Your task to perform on an android device: Search for a new skincare product Image 0: 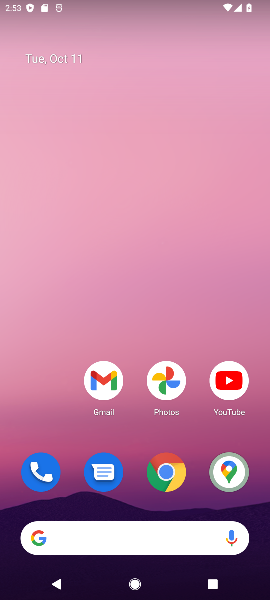
Step 0: click (175, 474)
Your task to perform on an android device: Search for a new skincare product Image 1: 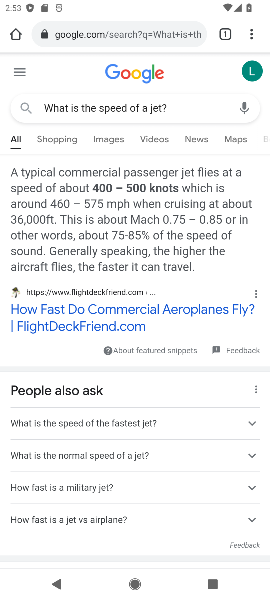
Step 1: click (95, 26)
Your task to perform on an android device: Search for a new skincare product Image 2: 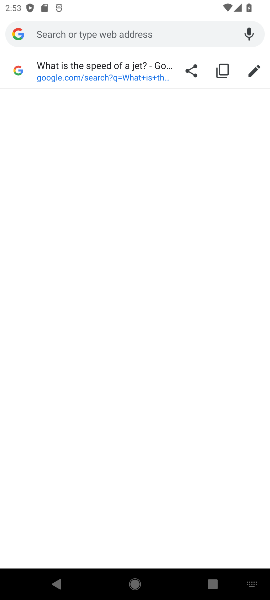
Step 2: type "new skincare product"
Your task to perform on an android device: Search for a new skincare product Image 3: 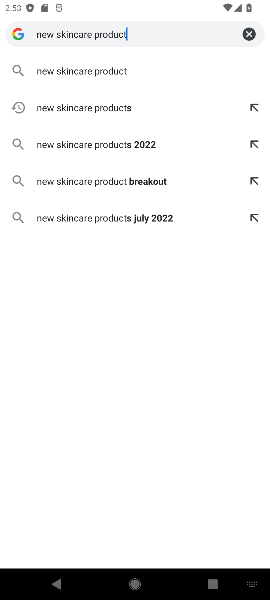
Step 3: click (129, 77)
Your task to perform on an android device: Search for a new skincare product Image 4: 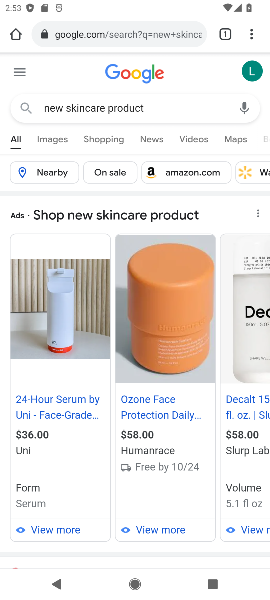
Step 4: click (103, 140)
Your task to perform on an android device: Search for a new skincare product Image 5: 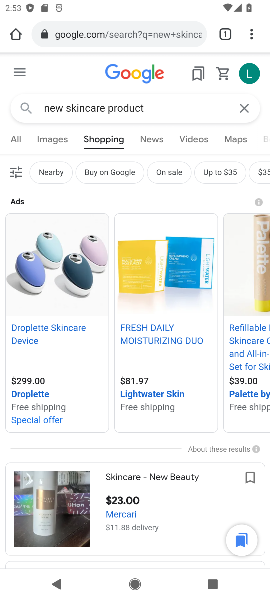
Step 5: click (61, 321)
Your task to perform on an android device: Search for a new skincare product Image 6: 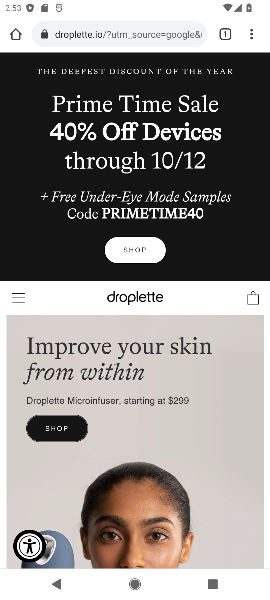
Step 6: task complete